Your task to perform on an android device: search for starred emails in the gmail app Image 0: 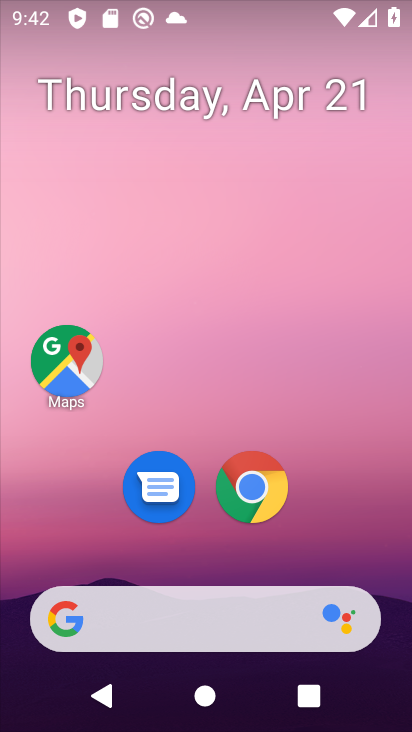
Step 0: drag from (399, 633) to (356, 150)
Your task to perform on an android device: search for starred emails in the gmail app Image 1: 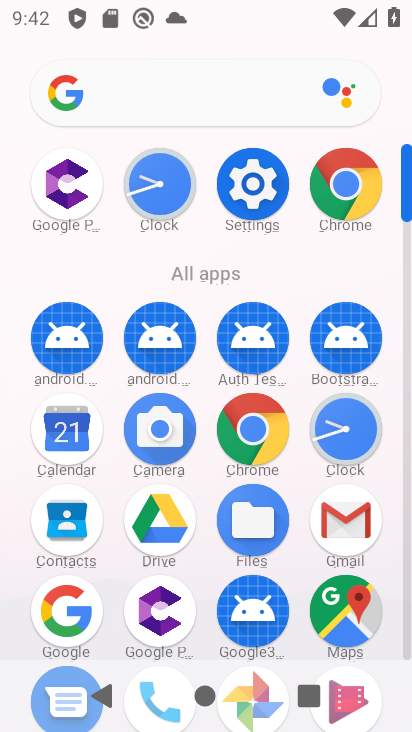
Step 1: click (342, 514)
Your task to perform on an android device: search for starred emails in the gmail app Image 2: 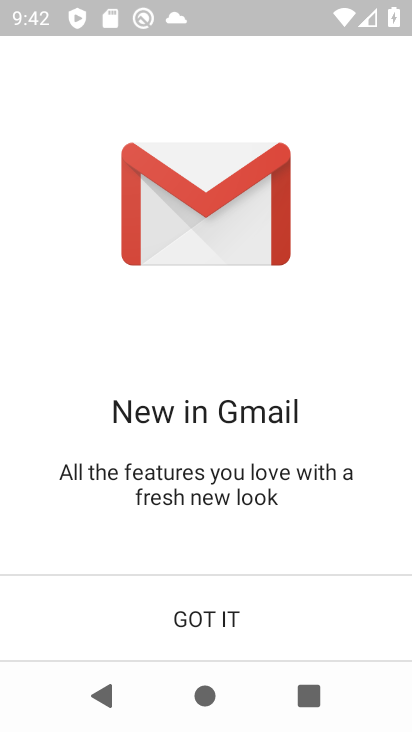
Step 2: click (198, 611)
Your task to perform on an android device: search for starred emails in the gmail app Image 3: 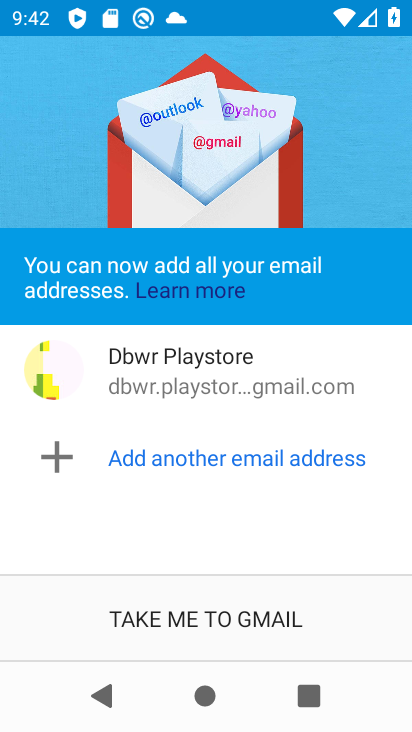
Step 3: click (187, 614)
Your task to perform on an android device: search for starred emails in the gmail app Image 4: 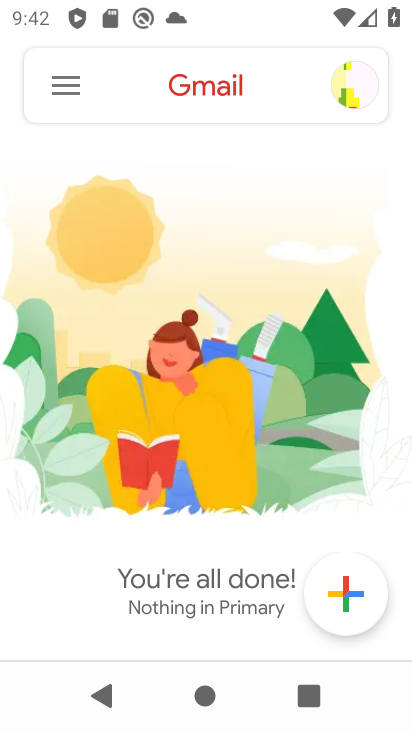
Step 4: click (62, 79)
Your task to perform on an android device: search for starred emails in the gmail app Image 5: 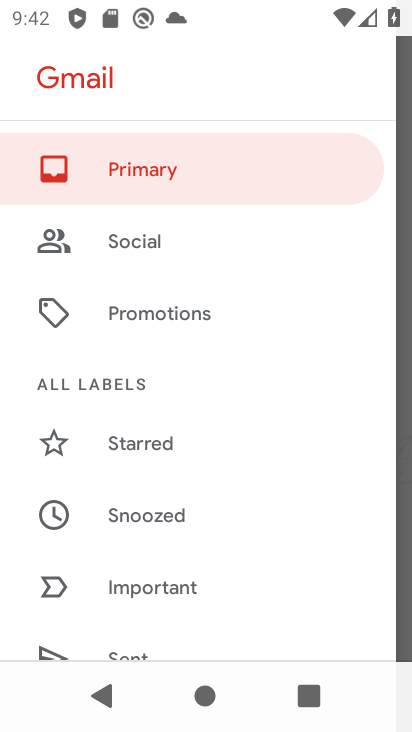
Step 5: click (128, 445)
Your task to perform on an android device: search for starred emails in the gmail app Image 6: 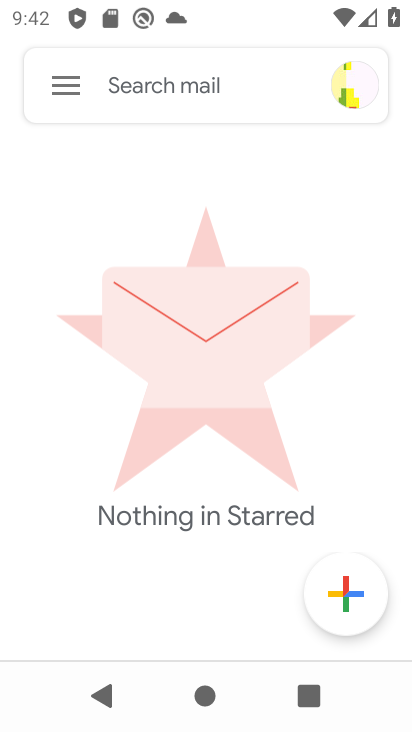
Step 6: task complete